Your task to perform on an android device: empty trash in google photos Image 0: 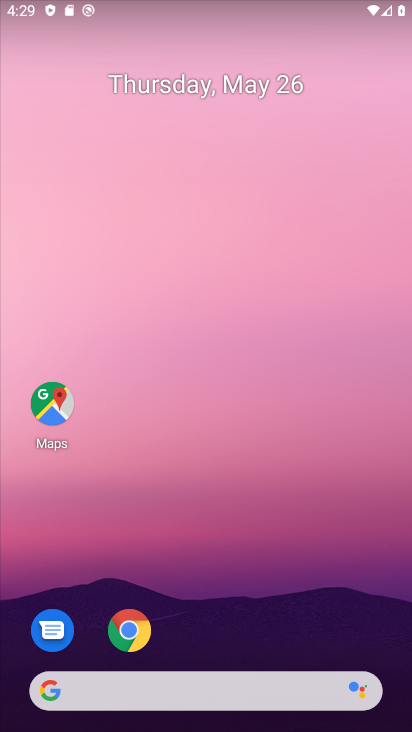
Step 0: drag from (174, 666) to (273, 106)
Your task to perform on an android device: empty trash in google photos Image 1: 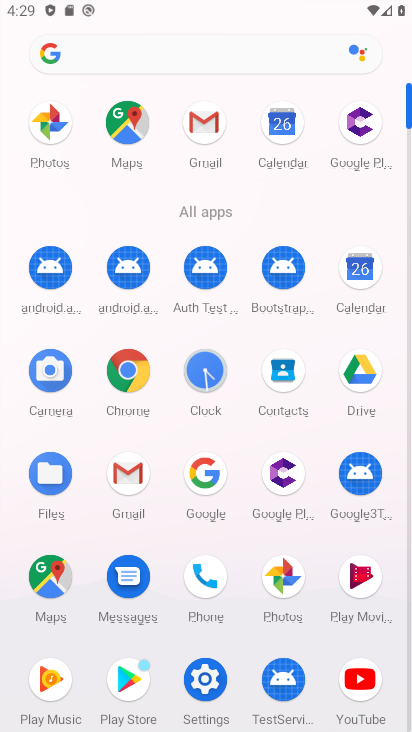
Step 1: click (289, 576)
Your task to perform on an android device: empty trash in google photos Image 2: 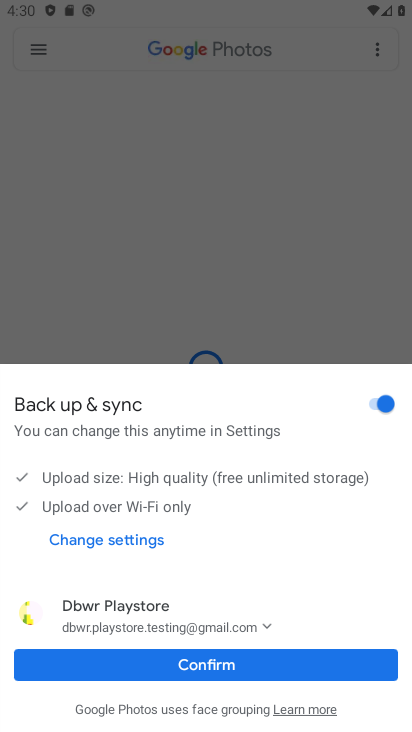
Step 2: click (221, 661)
Your task to perform on an android device: empty trash in google photos Image 3: 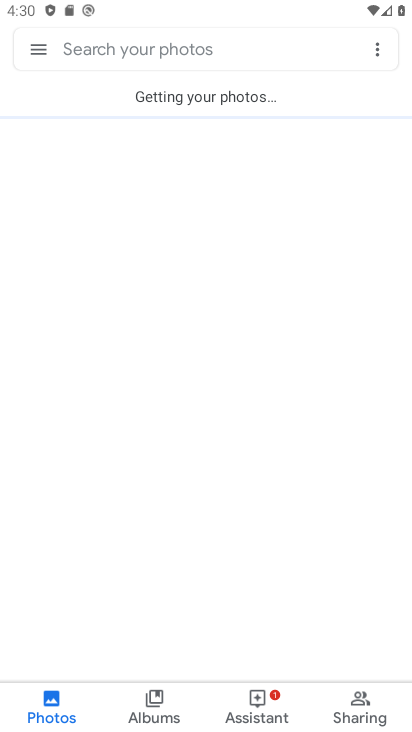
Step 3: click (39, 48)
Your task to perform on an android device: empty trash in google photos Image 4: 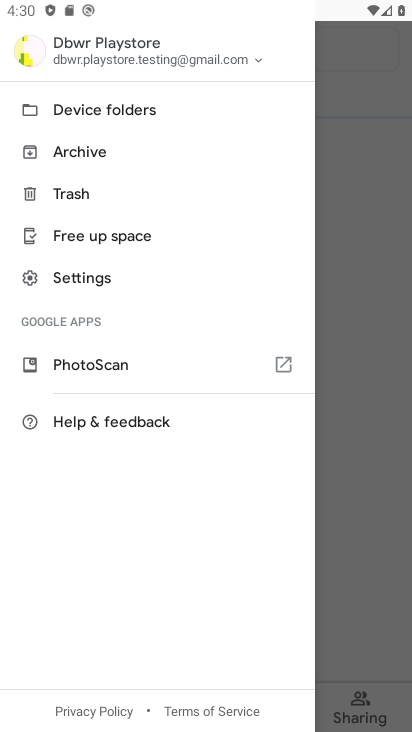
Step 4: click (72, 197)
Your task to perform on an android device: empty trash in google photos Image 5: 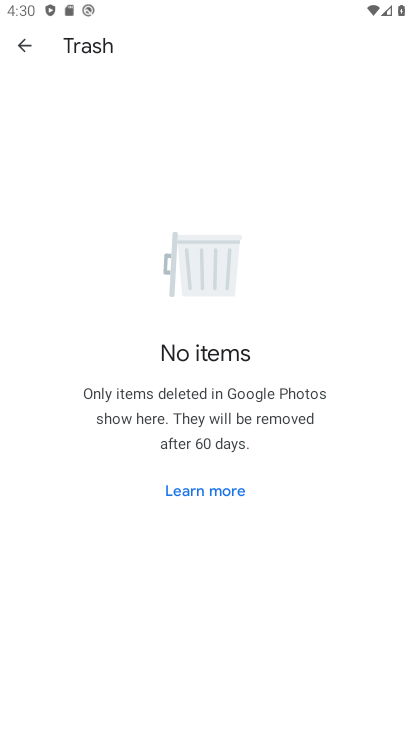
Step 5: task complete